Your task to perform on an android device: open app "Calculator" Image 0: 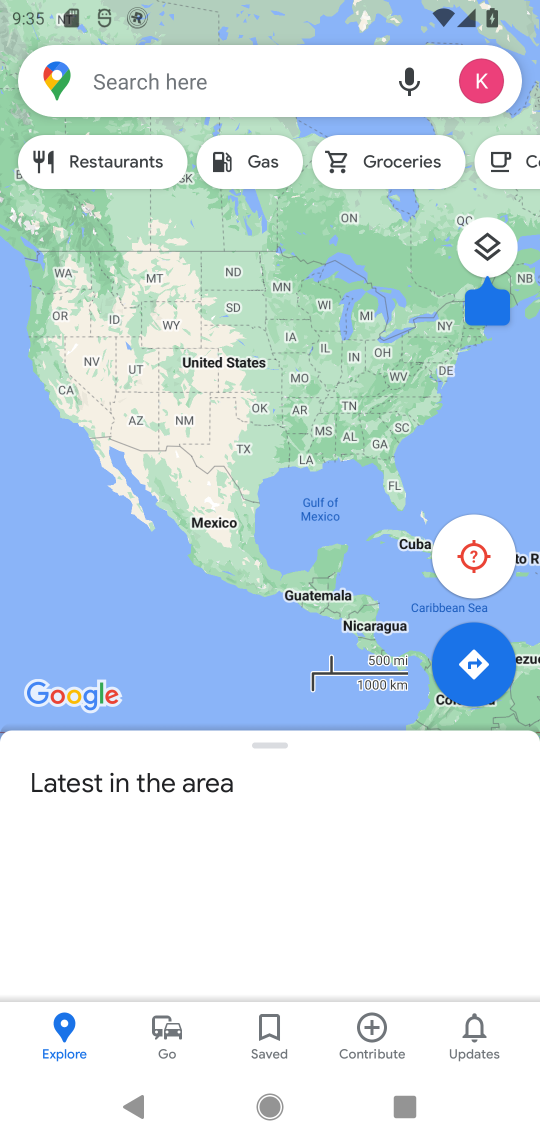
Step 0: press home button
Your task to perform on an android device: open app "Calculator" Image 1: 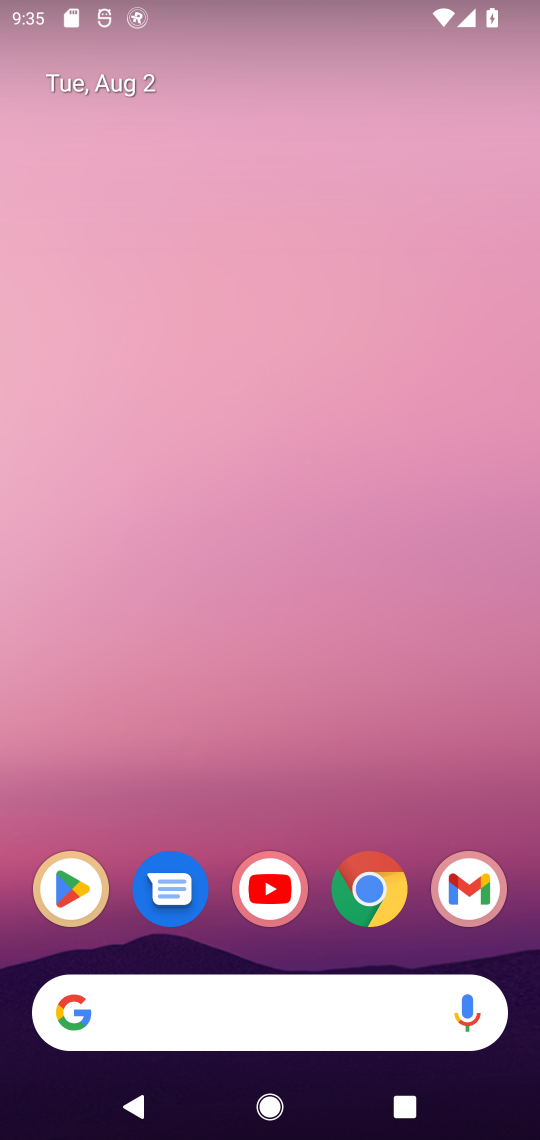
Step 1: click (69, 890)
Your task to perform on an android device: open app "Calculator" Image 2: 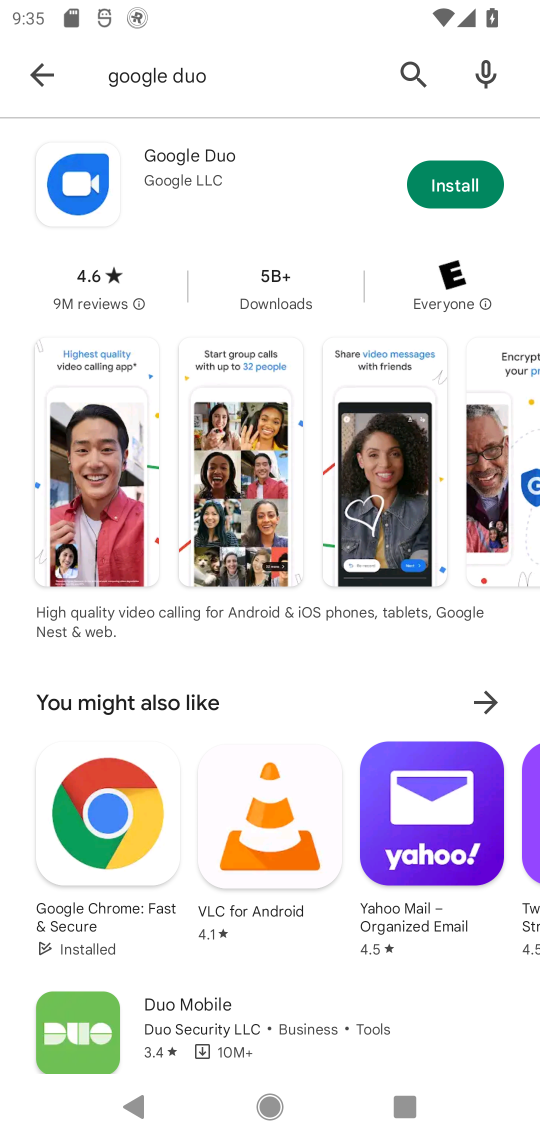
Step 2: click (408, 75)
Your task to perform on an android device: open app "Calculator" Image 3: 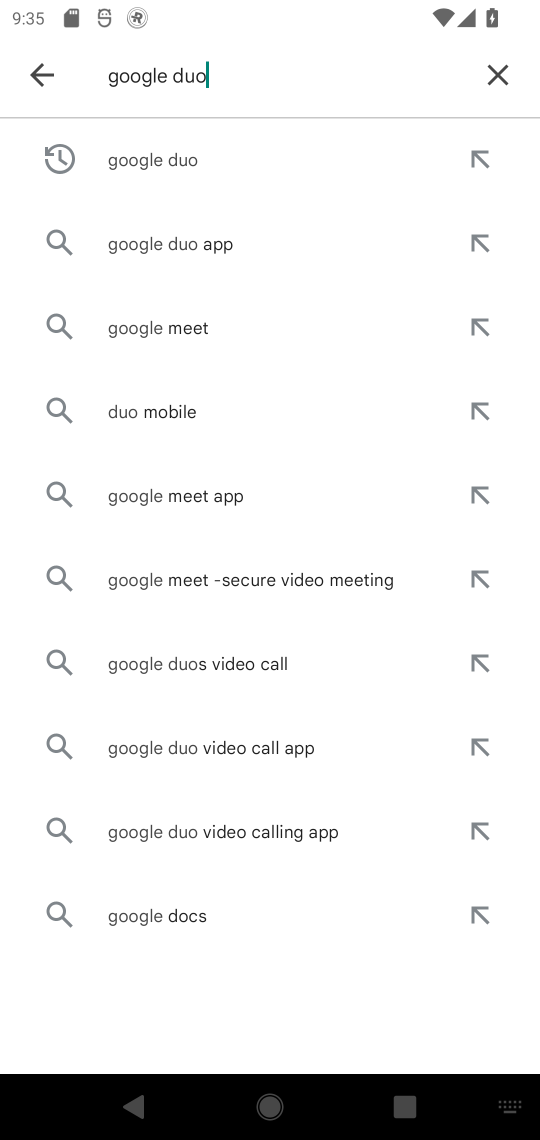
Step 3: type "Calculator"
Your task to perform on an android device: open app "Calculator" Image 4: 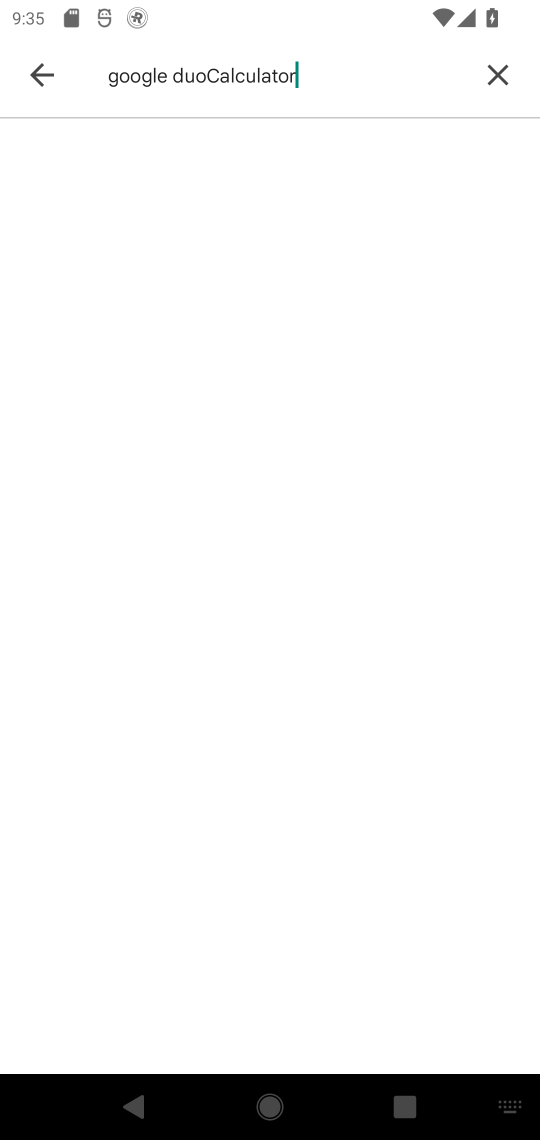
Step 4: click (494, 63)
Your task to perform on an android device: open app "Calculator" Image 5: 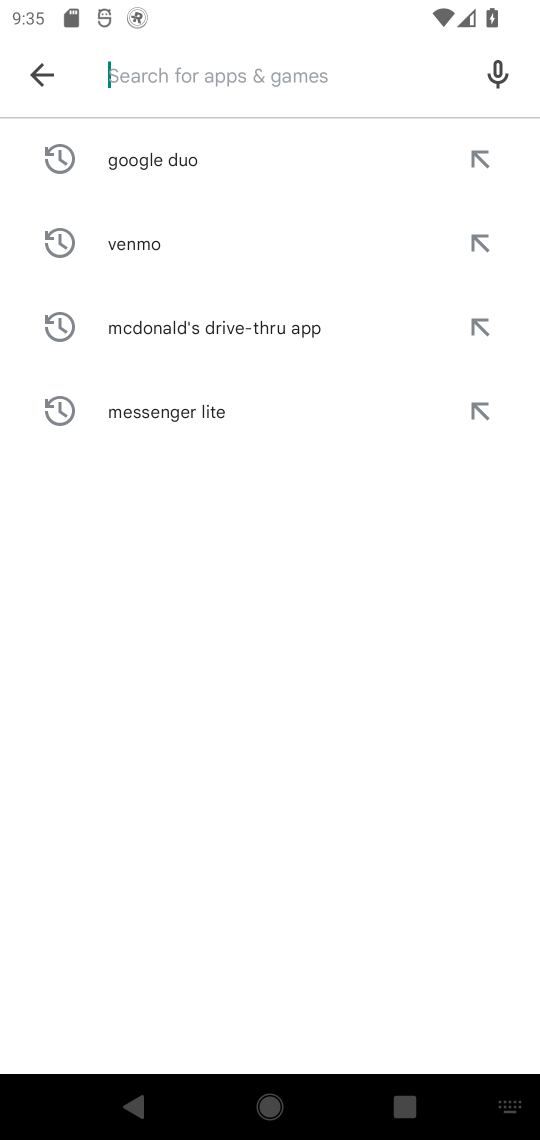
Step 5: type "Calculator"
Your task to perform on an android device: open app "Calculator" Image 6: 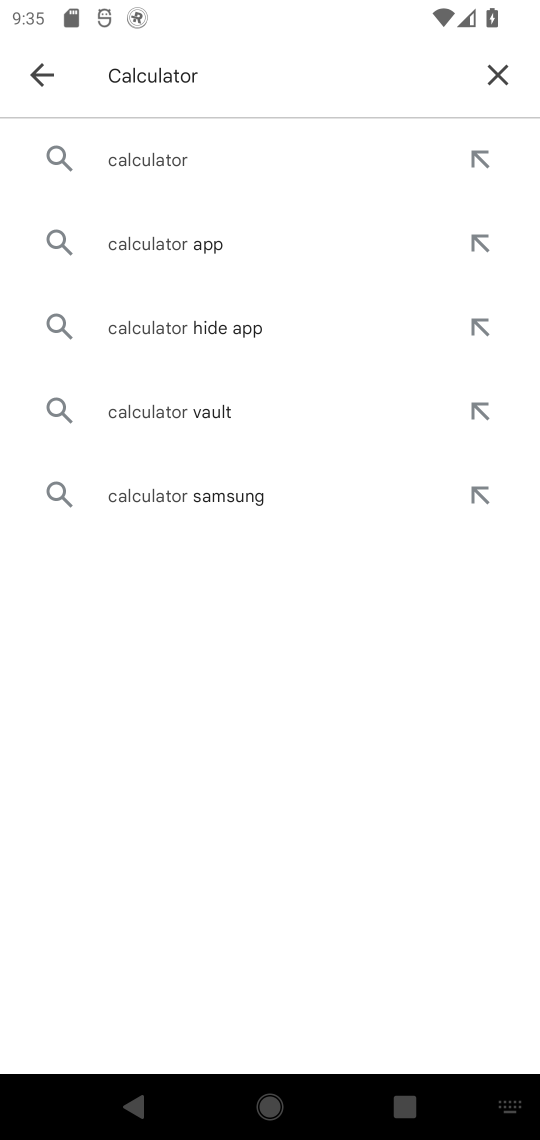
Step 6: click (130, 161)
Your task to perform on an android device: open app "Calculator" Image 7: 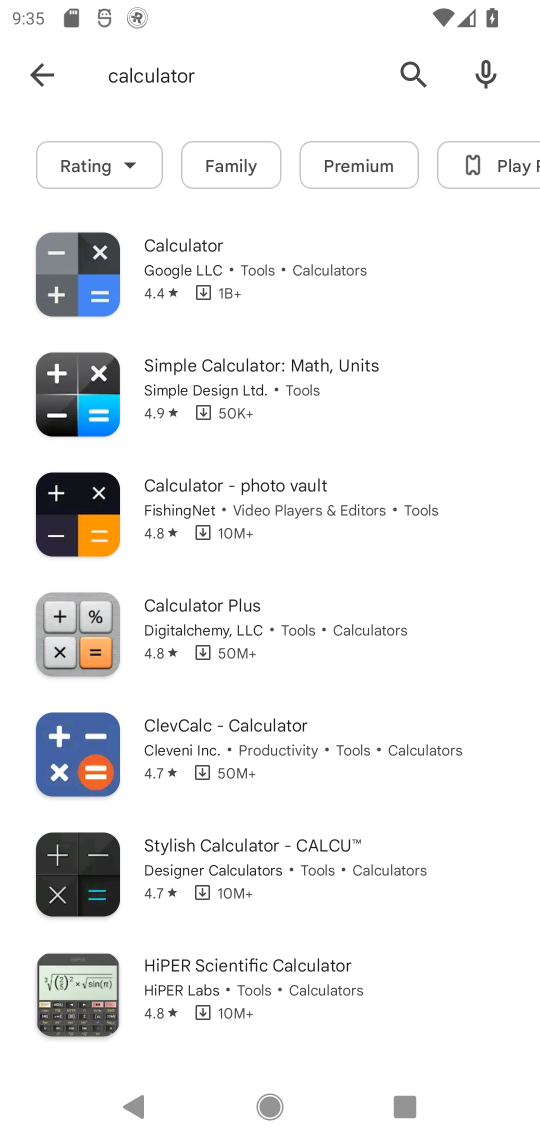
Step 7: click (204, 264)
Your task to perform on an android device: open app "Calculator" Image 8: 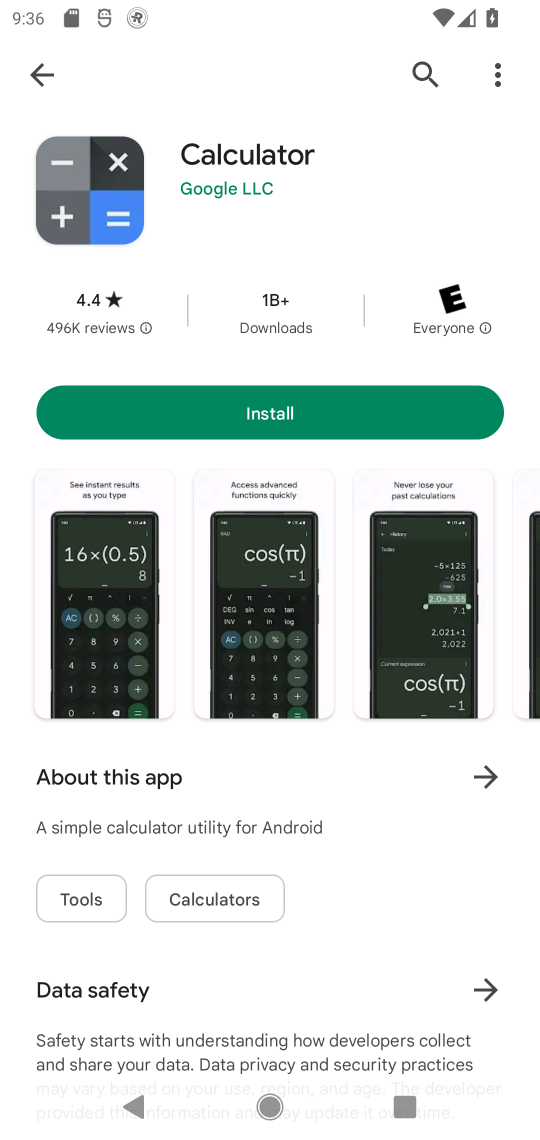
Step 8: task complete